Your task to perform on an android device: Is it going to rain today? Image 0: 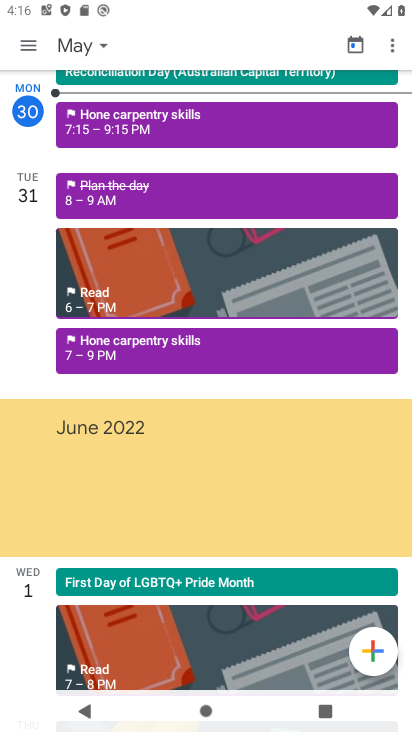
Step 0: press home button
Your task to perform on an android device: Is it going to rain today? Image 1: 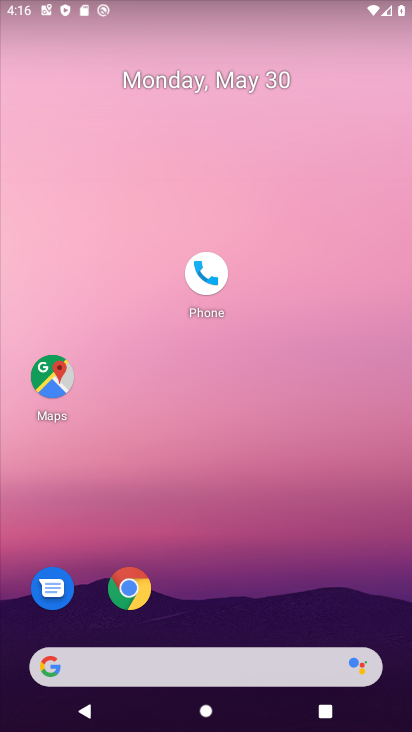
Step 1: click (209, 657)
Your task to perform on an android device: Is it going to rain today? Image 2: 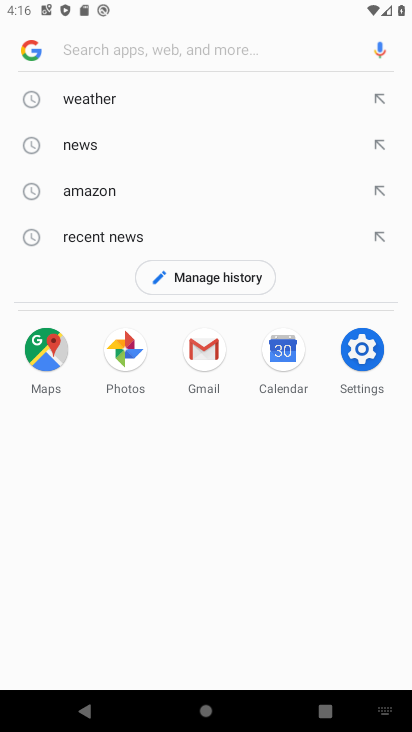
Step 2: type " going to rain today?"
Your task to perform on an android device: Is it going to rain today? Image 3: 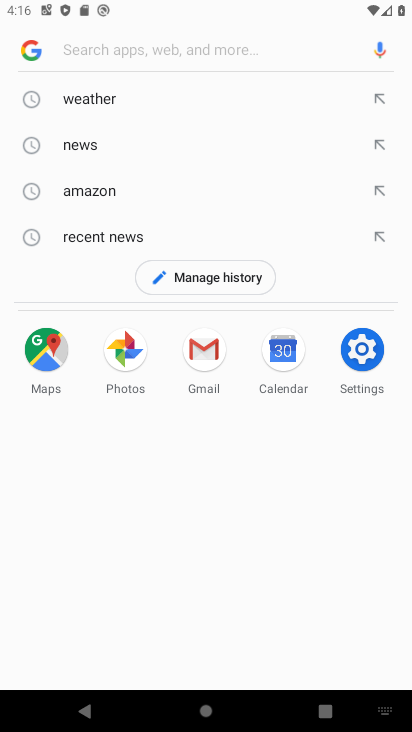
Step 3: click (213, 49)
Your task to perform on an android device: Is it going to rain today? Image 4: 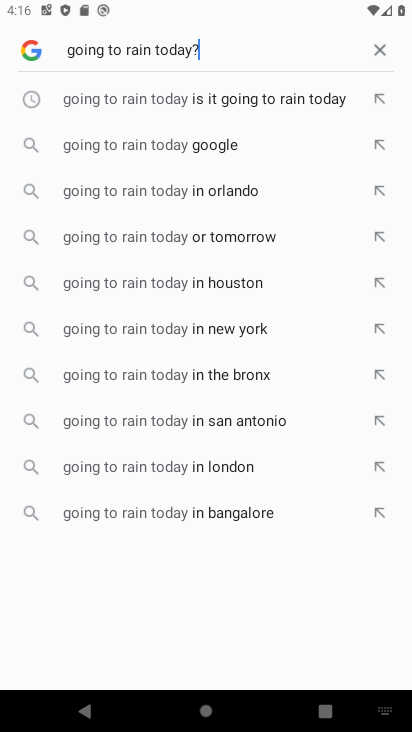
Step 4: click (180, 147)
Your task to perform on an android device: Is it going to rain today? Image 5: 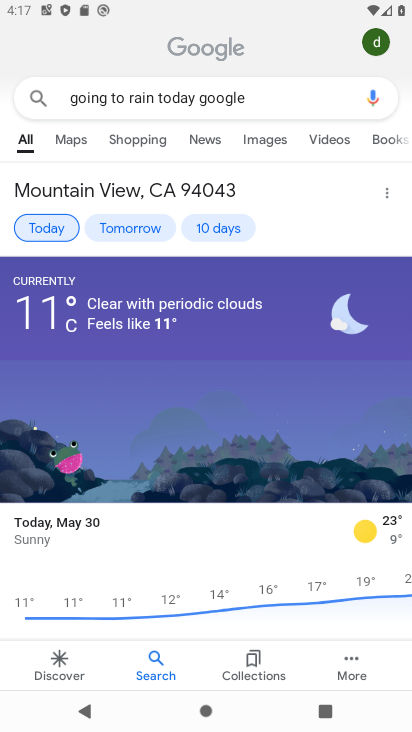
Step 5: task complete